Your task to perform on an android device: open a bookmark in the chrome app Image 0: 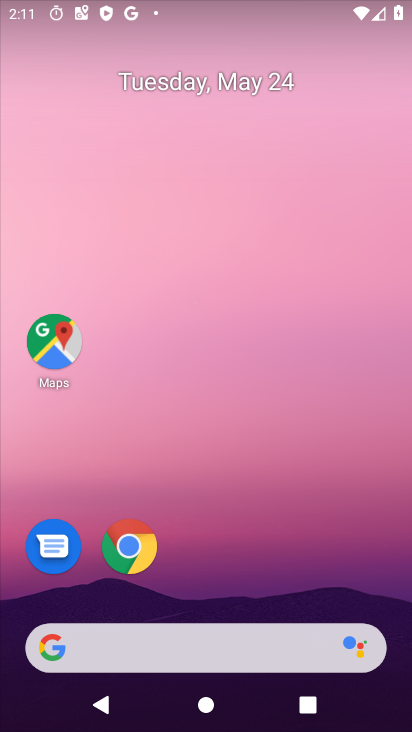
Step 0: click (132, 555)
Your task to perform on an android device: open a bookmark in the chrome app Image 1: 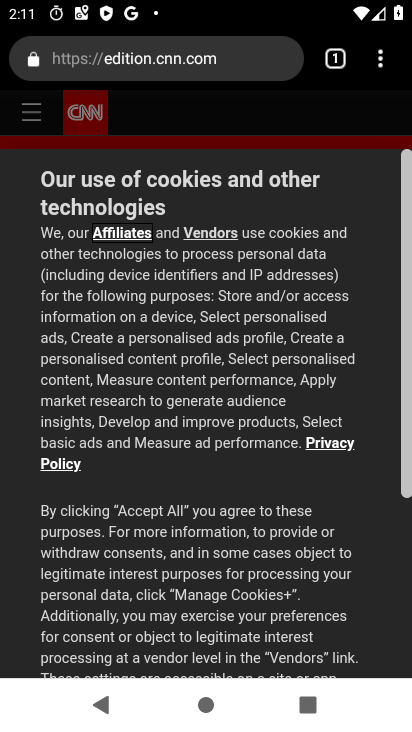
Step 1: task complete